Your task to perform on an android device: Go to battery settings Image 0: 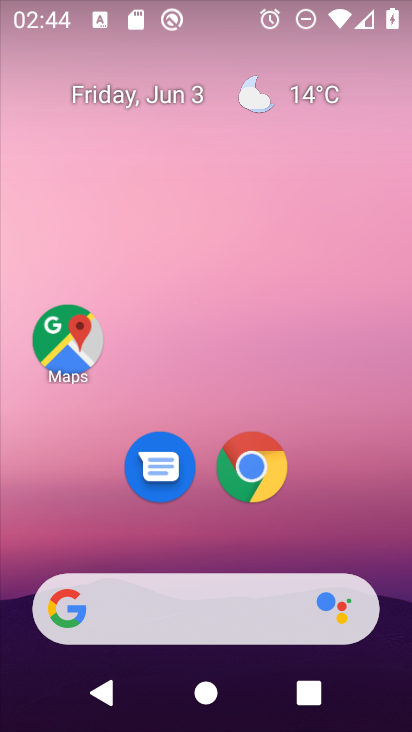
Step 0: click (325, 84)
Your task to perform on an android device: Go to battery settings Image 1: 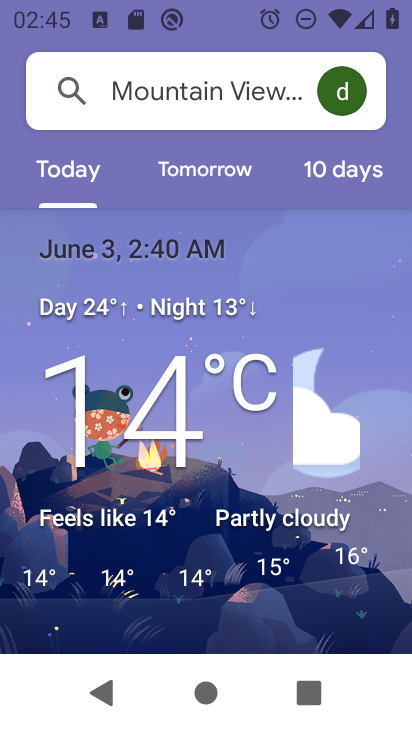
Step 1: press home button
Your task to perform on an android device: Go to battery settings Image 2: 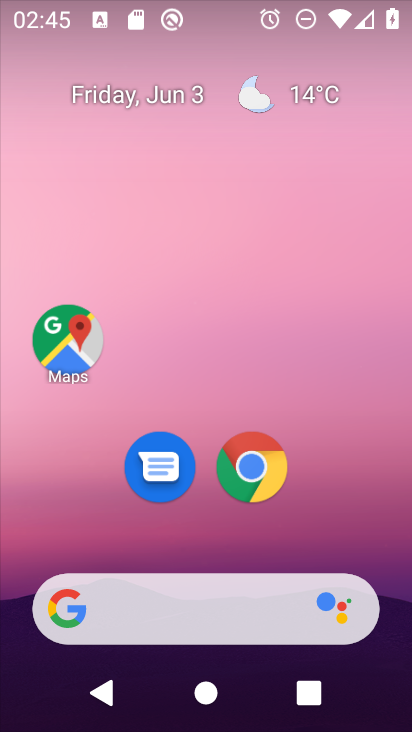
Step 2: drag from (389, 579) to (304, 80)
Your task to perform on an android device: Go to battery settings Image 3: 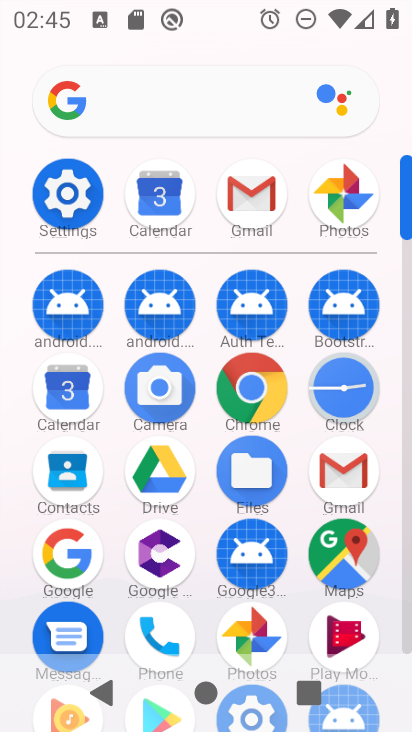
Step 3: click (404, 628)
Your task to perform on an android device: Go to battery settings Image 4: 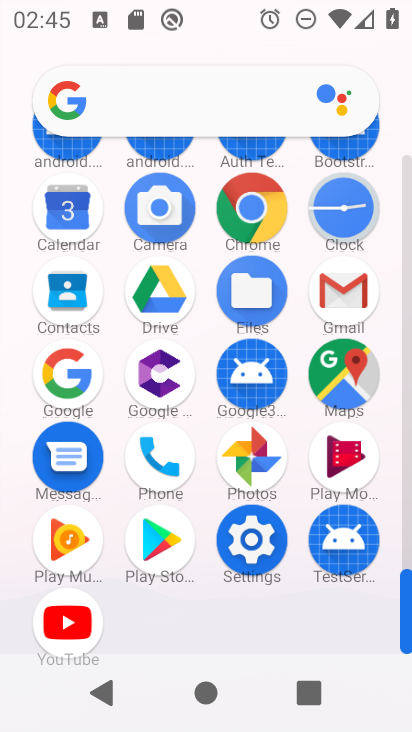
Step 4: click (250, 533)
Your task to perform on an android device: Go to battery settings Image 5: 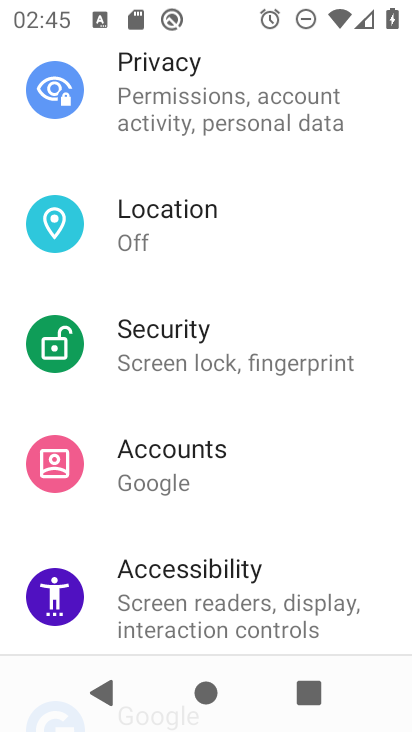
Step 5: drag from (289, 228) to (282, 509)
Your task to perform on an android device: Go to battery settings Image 6: 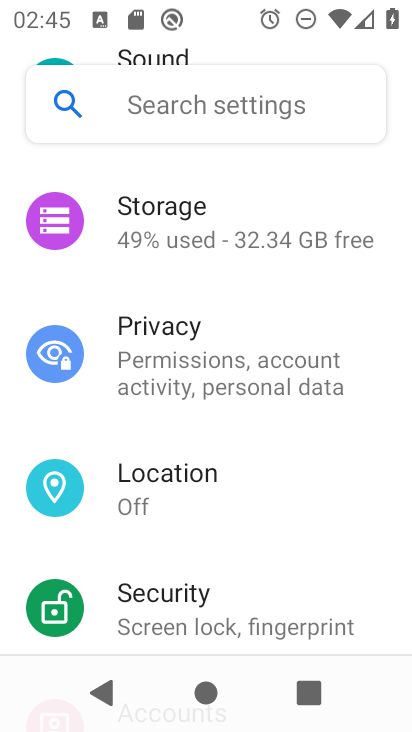
Step 6: drag from (331, 173) to (319, 479)
Your task to perform on an android device: Go to battery settings Image 7: 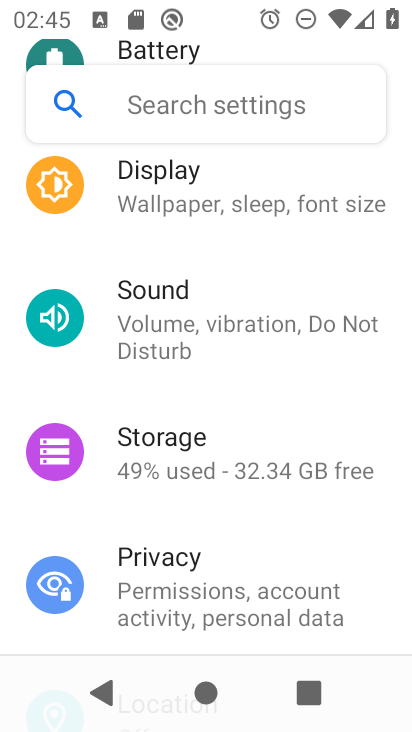
Step 7: drag from (341, 217) to (326, 455)
Your task to perform on an android device: Go to battery settings Image 8: 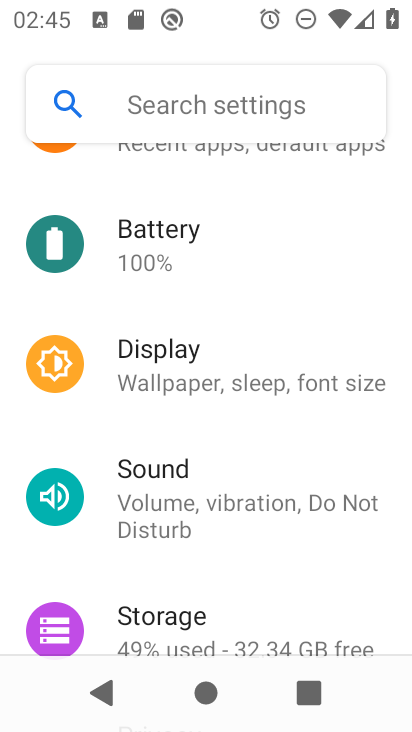
Step 8: drag from (309, 245) to (309, 451)
Your task to perform on an android device: Go to battery settings Image 9: 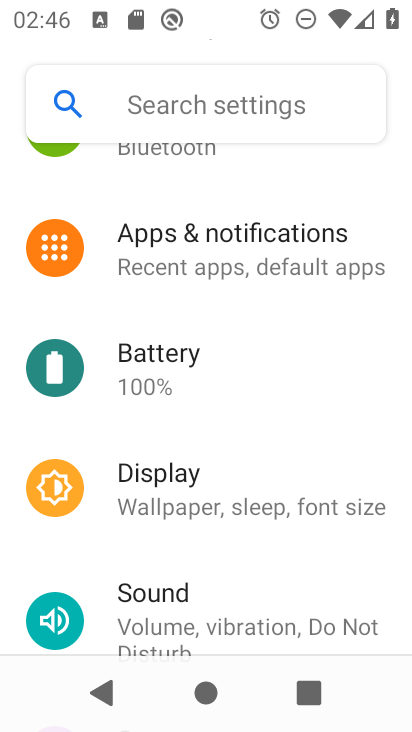
Step 9: drag from (318, 234) to (312, 320)
Your task to perform on an android device: Go to battery settings Image 10: 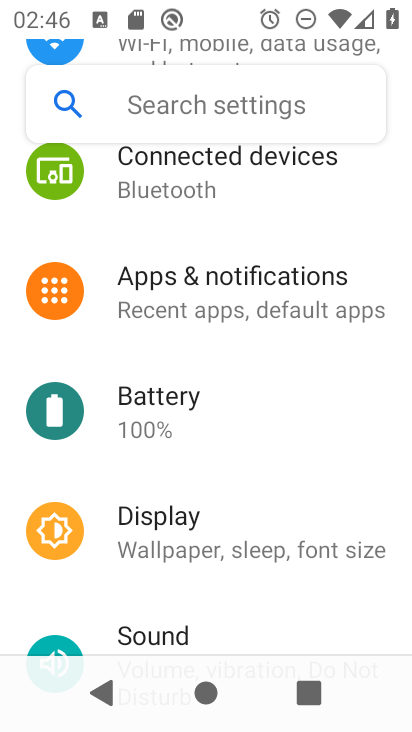
Step 10: click (129, 414)
Your task to perform on an android device: Go to battery settings Image 11: 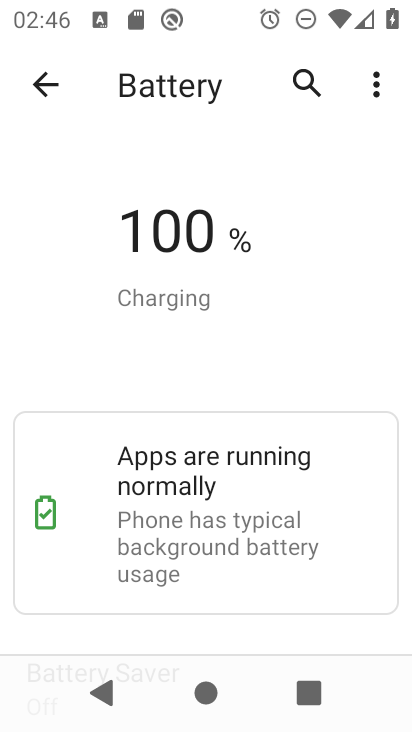
Step 11: task complete